Your task to perform on an android device: see sites visited before in the chrome app Image 0: 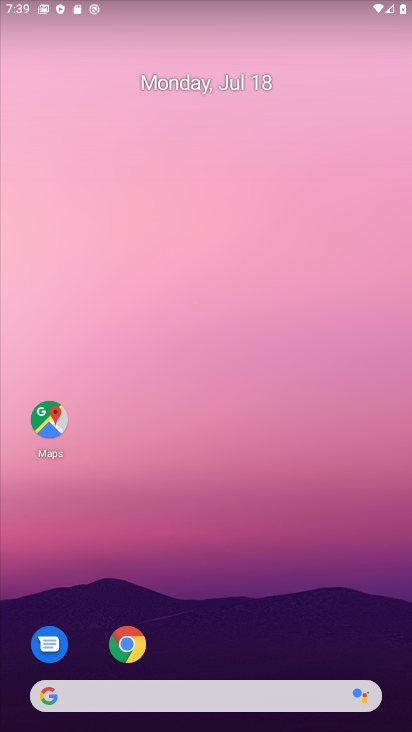
Step 0: click (130, 645)
Your task to perform on an android device: see sites visited before in the chrome app Image 1: 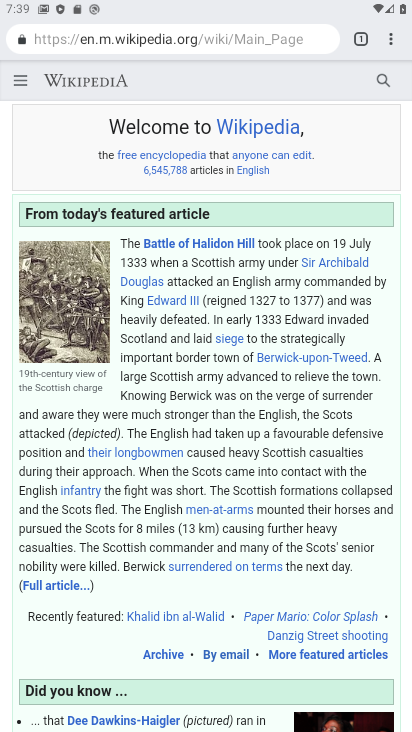
Step 1: task complete